Your task to perform on an android device: uninstall "WhatsApp Messenger" Image 0: 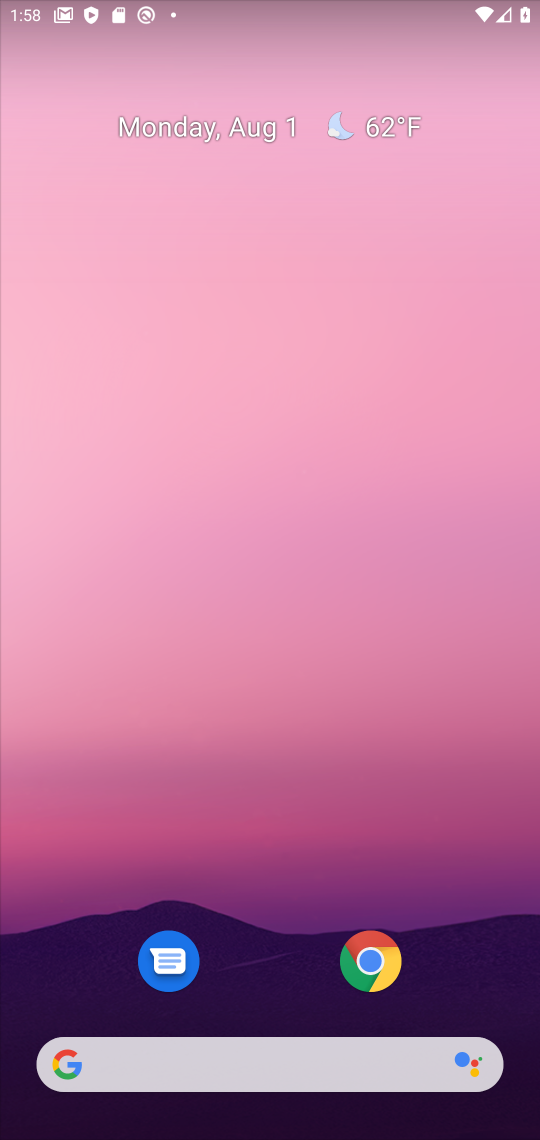
Step 0: drag from (282, 938) to (306, 12)
Your task to perform on an android device: uninstall "WhatsApp Messenger" Image 1: 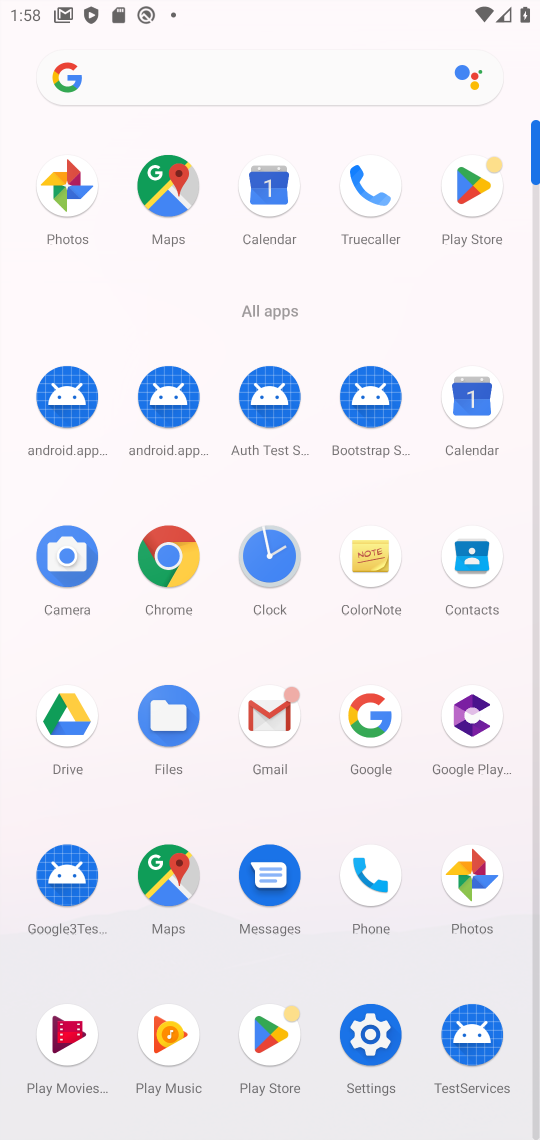
Step 1: click (474, 180)
Your task to perform on an android device: uninstall "WhatsApp Messenger" Image 2: 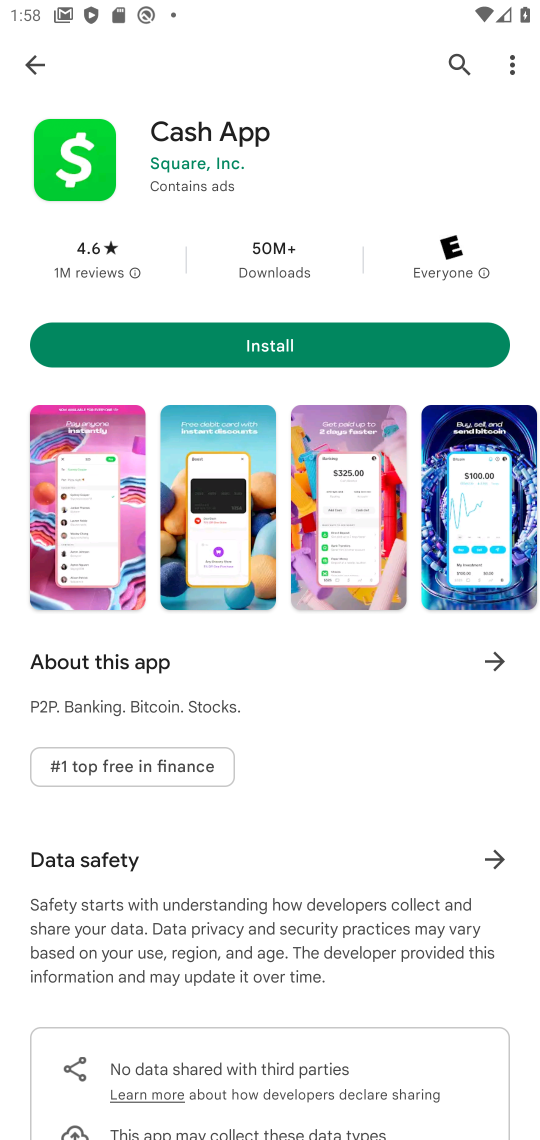
Step 2: click (470, 54)
Your task to perform on an android device: uninstall "WhatsApp Messenger" Image 3: 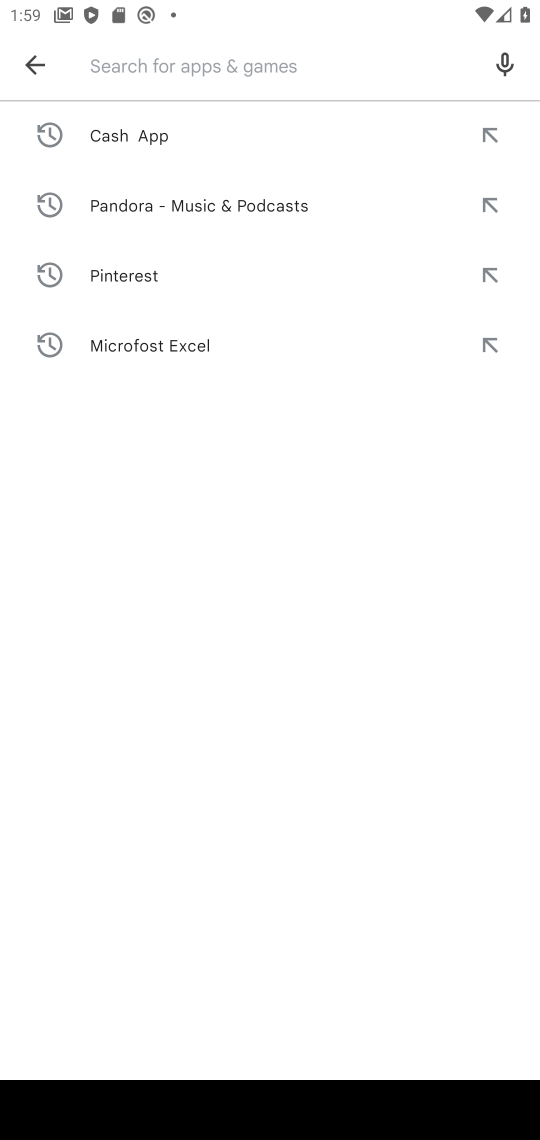
Step 3: type "WhatsApp Messenger"
Your task to perform on an android device: uninstall "WhatsApp Messenger" Image 4: 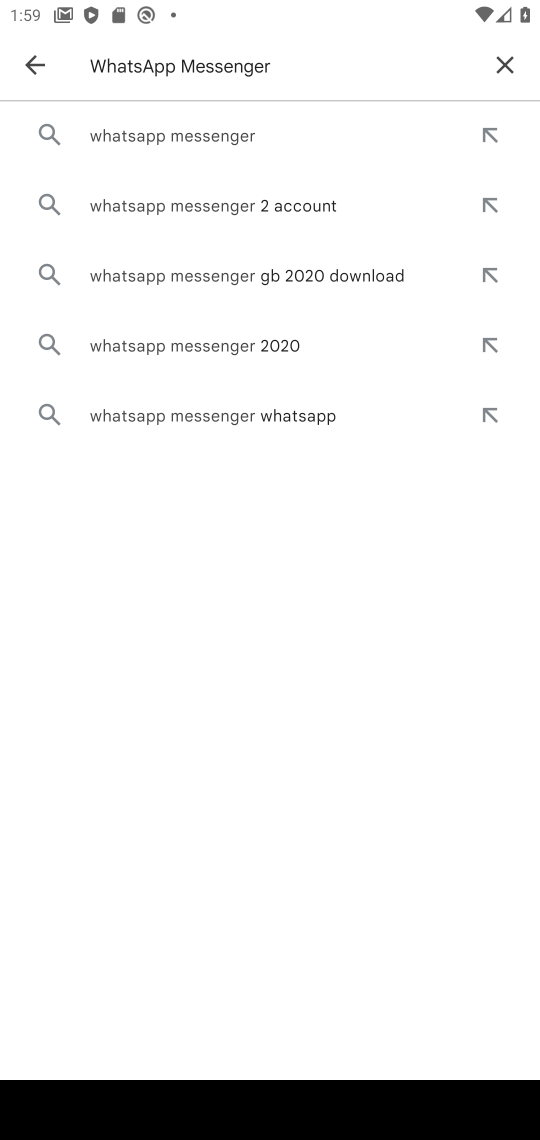
Step 4: press enter
Your task to perform on an android device: uninstall "WhatsApp Messenger" Image 5: 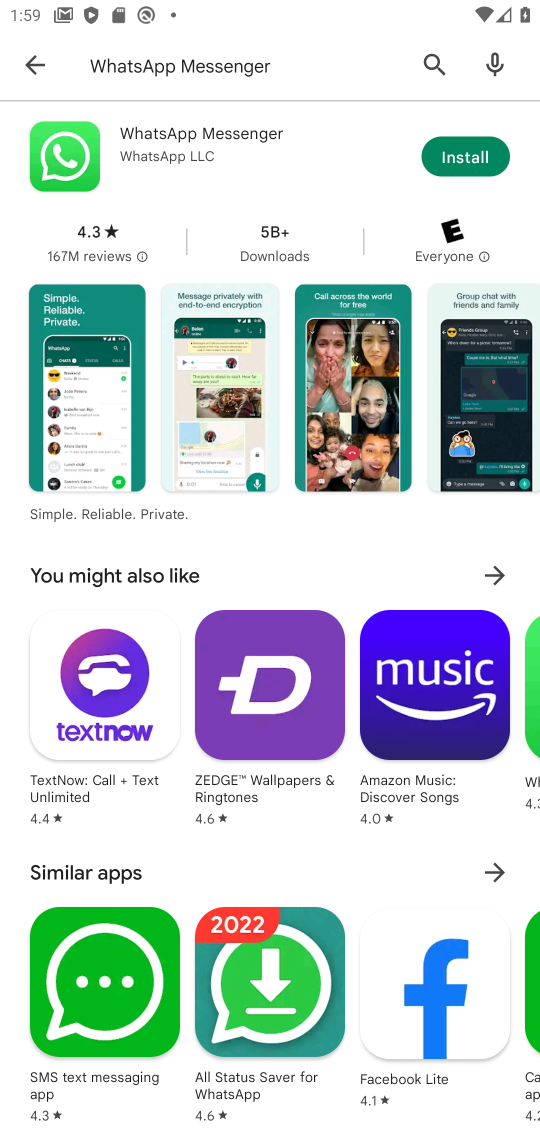
Step 5: click (254, 153)
Your task to perform on an android device: uninstall "WhatsApp Messenger" Image 6: 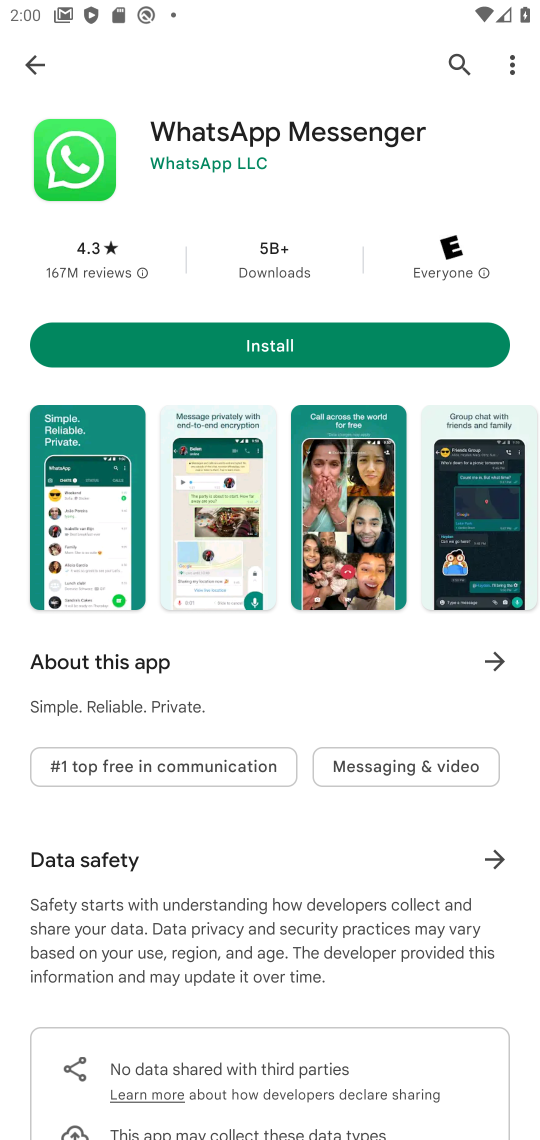
Step 6: task complete